Your task to perform on an android device: Is it going to rain this weekend? Image 0: 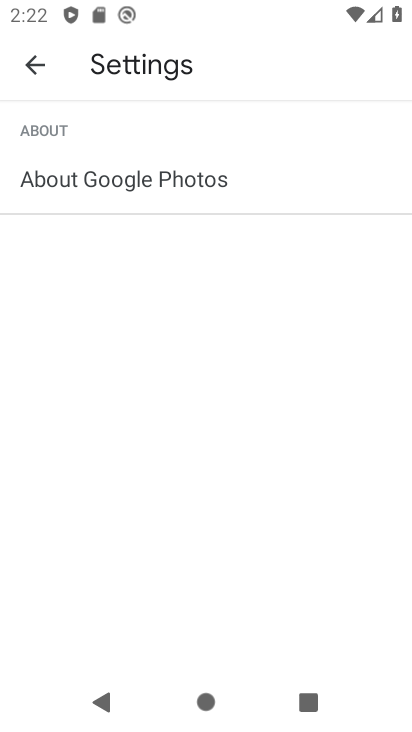
Step 0: press home button
Your task to perform on an android device: Is it going to rain this weekend? Image 1: 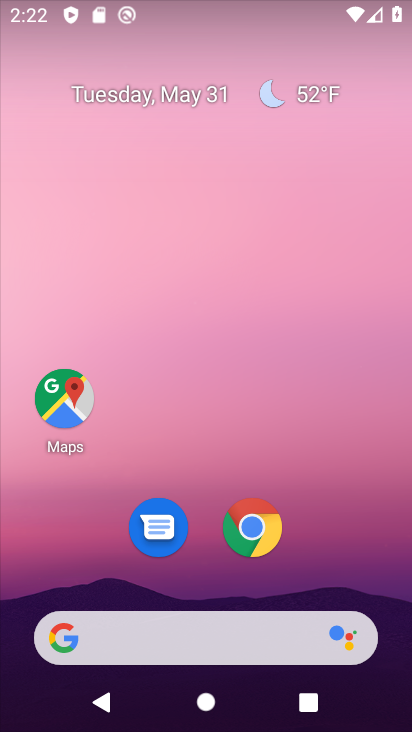
Step 1: click (304, 109)
Your task to perform on an android device: Is it going to rain this weekend? Image 2: 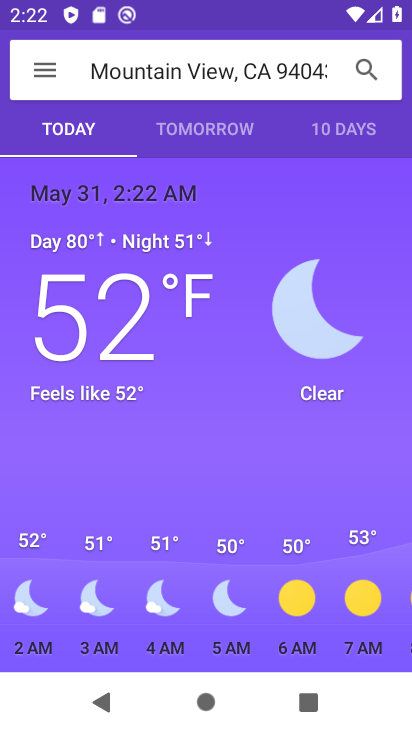
Step 2: click (349, 147)
Your task to perform on an android device: Is it going to rain this weekend? Image 3: 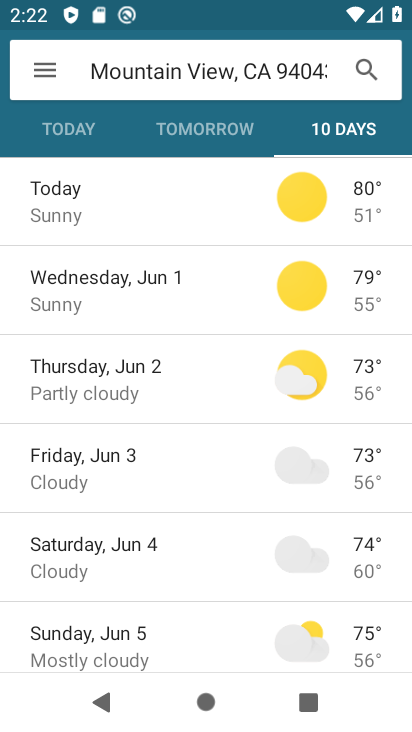
Step 3: task complete